Your task to perform on an android device: check out phone information Image 0: 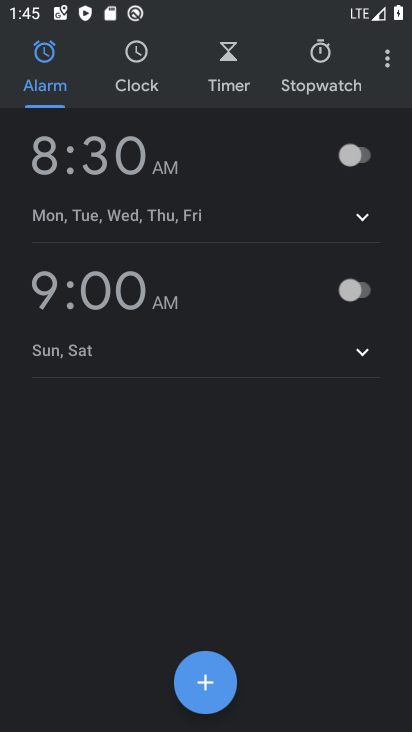
Step 0: press home button
Your task to perform on an android device: check out phone information Image 1: 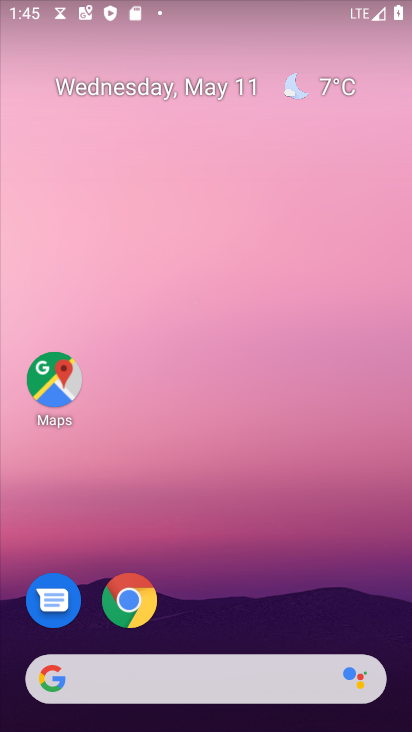
Step 1: drag from (256, 520) to (250, 72)
Your task to perform on an android device: check out phone information Image 2: 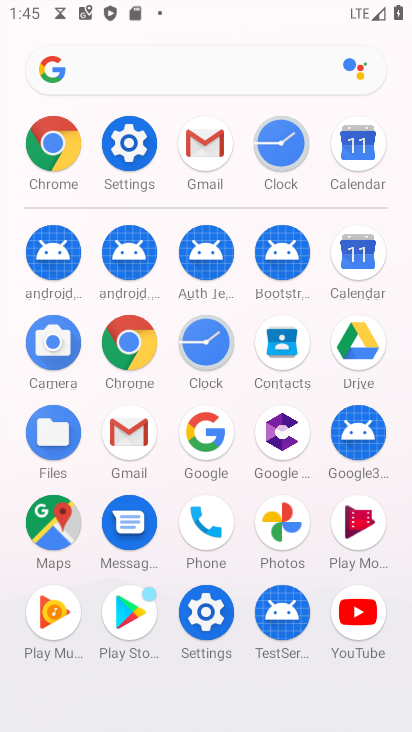
Step 2: click (139, 147)
Your task to perform on an android device: check out phone information Image 3: 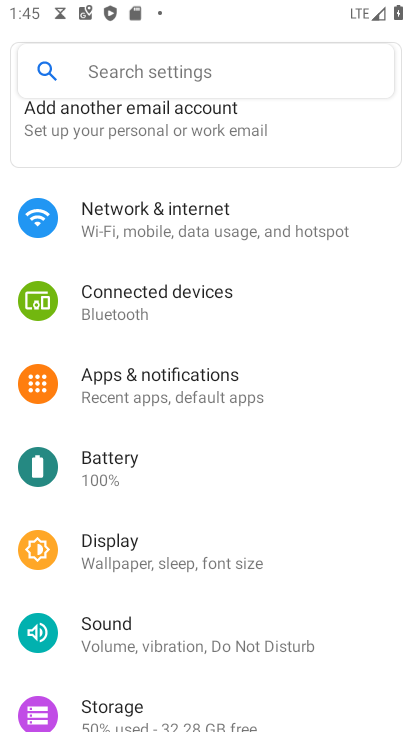
Step 3: drag from (189, 550) to (201, 120)
Your task to perform on an android device: check out phone information Image 4: 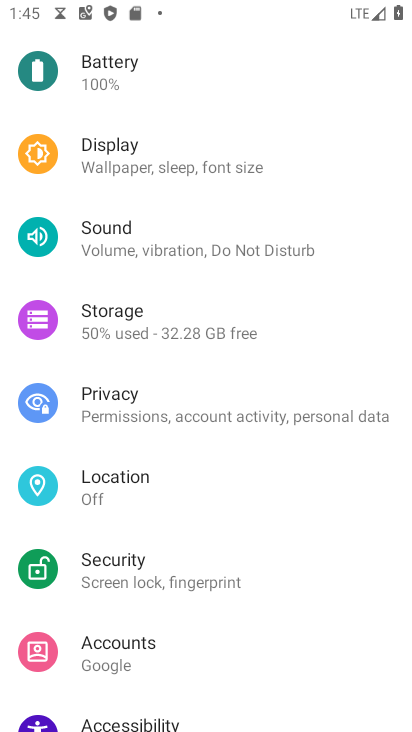
Step 4: drag from (177, 613) to (201, 182)
Your task to perform on an android device: check out phone information Image 5: 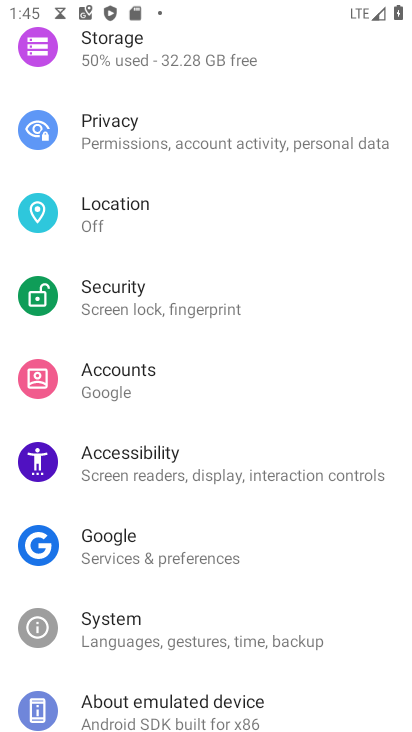
Step 5: drag from (195, 665) to (223, 307)
Your task to perform on an android device: check out phone information Image 6: 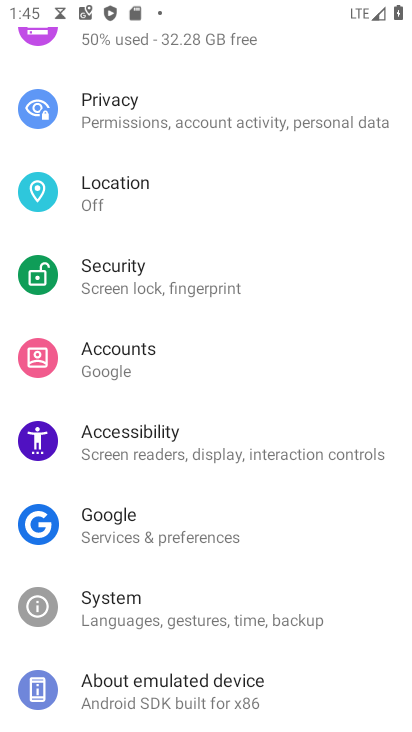
Step 6: click (188, 703)
Your task to perform on an android device: check out phone information Image 7: 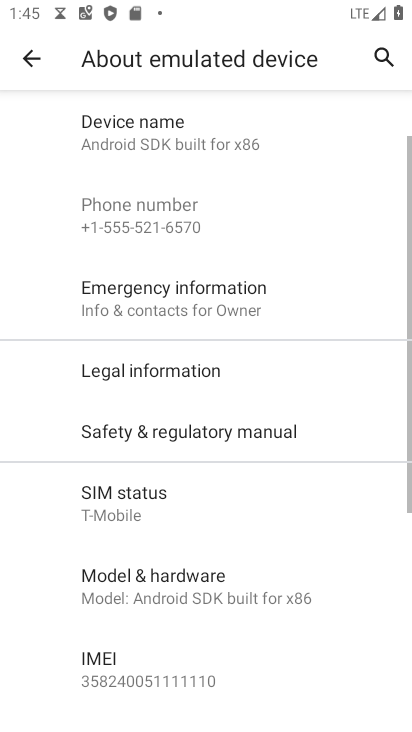
Step 7: task complete